Your task to perform on an android device: set the stopwatch Image 0: 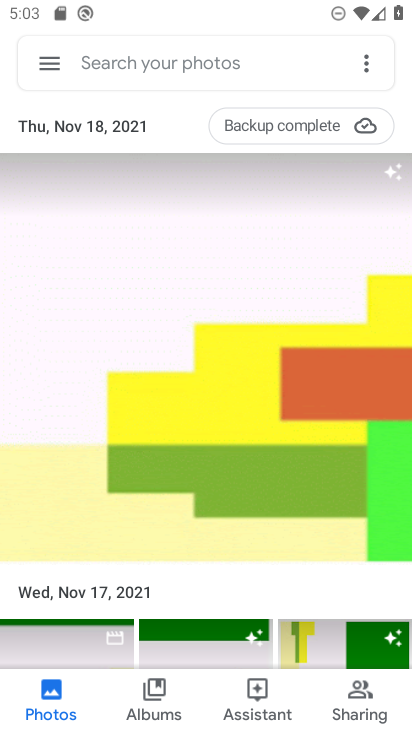
Step 0: press home button
Your task to perform on an android device: set the stopwatch Image 1: 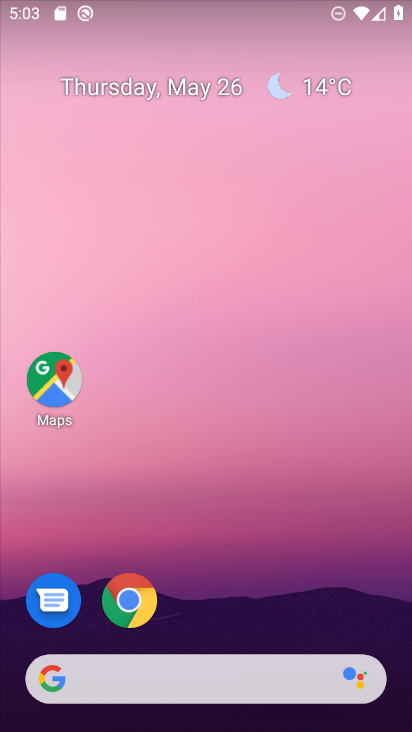
Step 1: drag from (211, 590) to (222, 47)
Your task to perform on an android device: set the stopwatch Image 2: 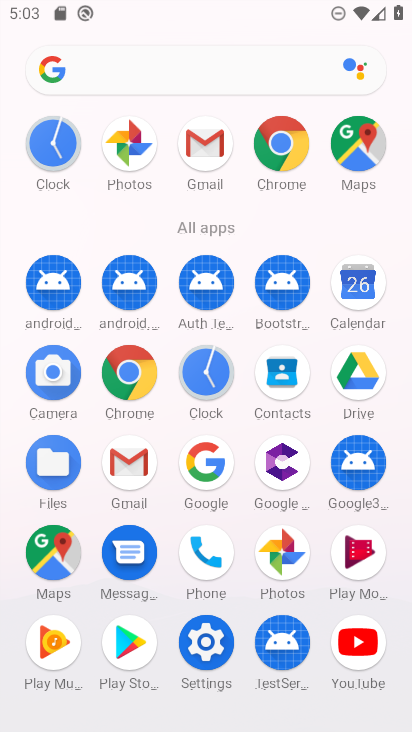
Step 2: drag from (214, 607) to (220, 243)
Your task to perform on an android device: set the stopwatch Image 3: 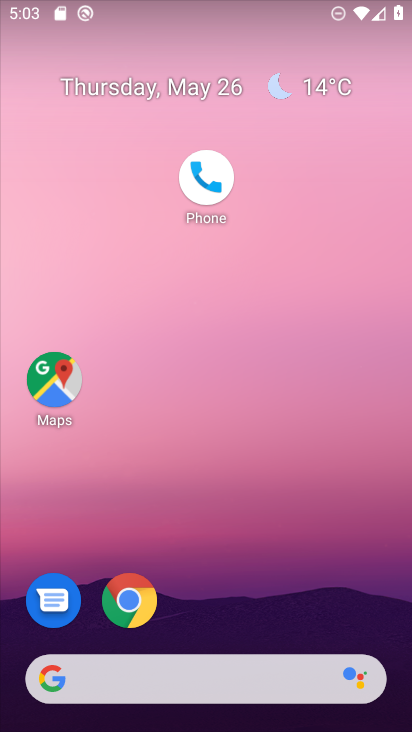
Step 3: click (70, 154)
Your task to perform on an android device: set the stopwatch Image 4: 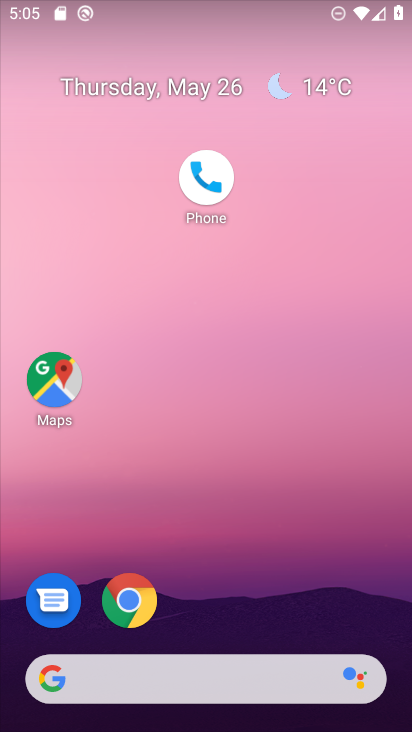
Step 4: drag from (201, 610) to (254, 30)
Your task to perform on an android device: set the stopwatch Image 5: 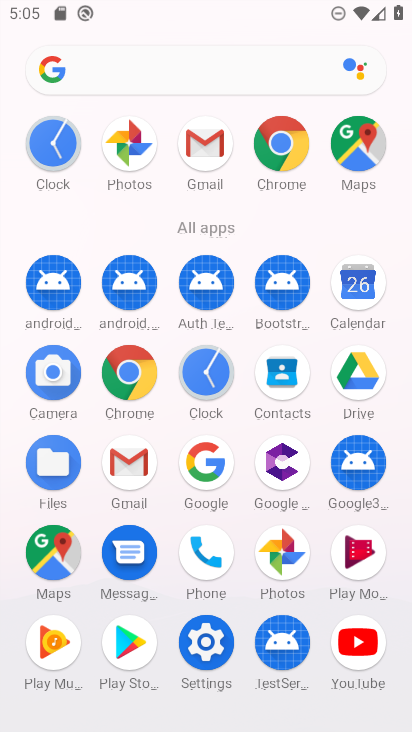
Step 5: click (59, 157)
Your task to perform on an android device: set the stopwatch Image 6: 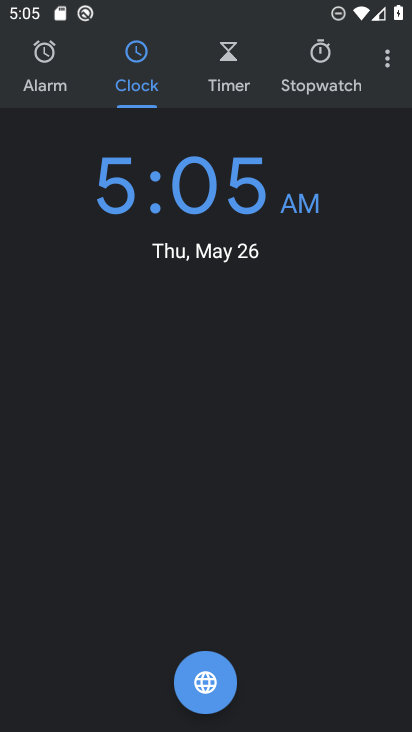
Step 6: click (319, 49)
Your task to perform on an android device: set the stopwatch Image 7: 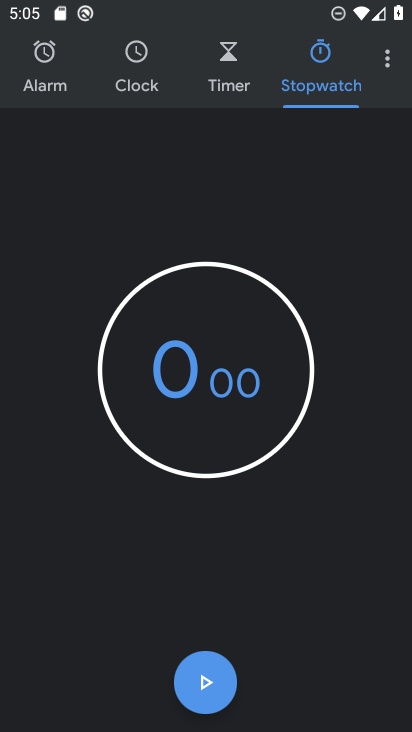
Step 7: click (197, 698)
Your task to perform on an android device: set the stopwatch Image 8: 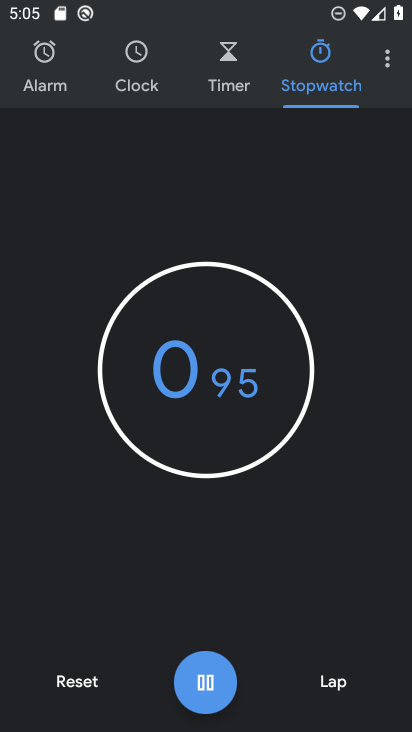
Step 8: task complete